Your task to perform on an android device: delete browsing data in the chrome app Image 0: 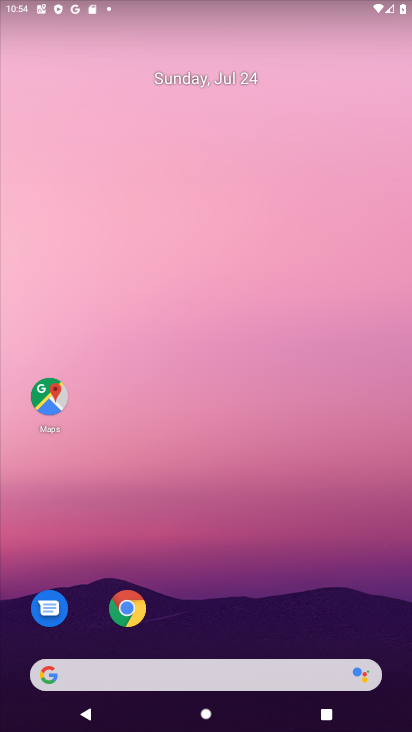
Step 0: click (128, 598)
Your task to perform on an android device: delete browsing data in the chrome app Image 1: 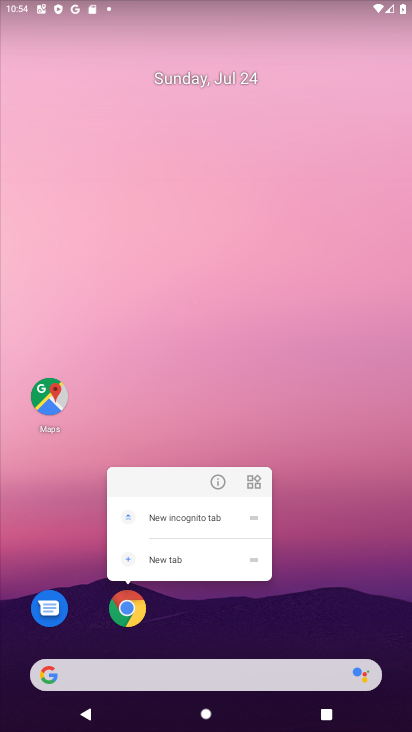
Step 1: click (130, 603)
Your task to perform on an android device: delete browsing data in the chrome app Image 2: 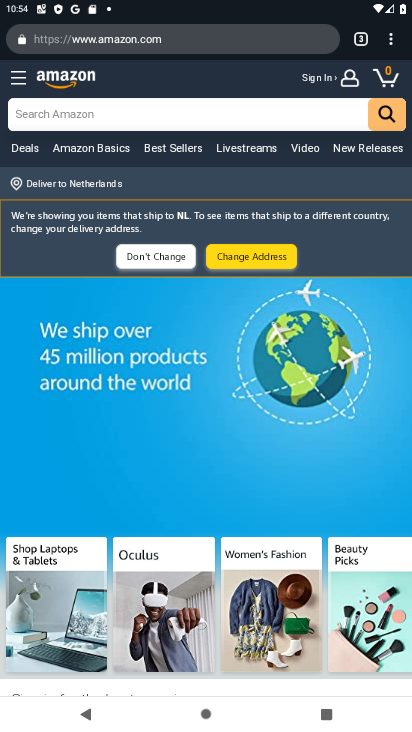
Step 2: click (393, 38)
Your task to perform on an android device: delete browsing data in the chrome app Image 3: 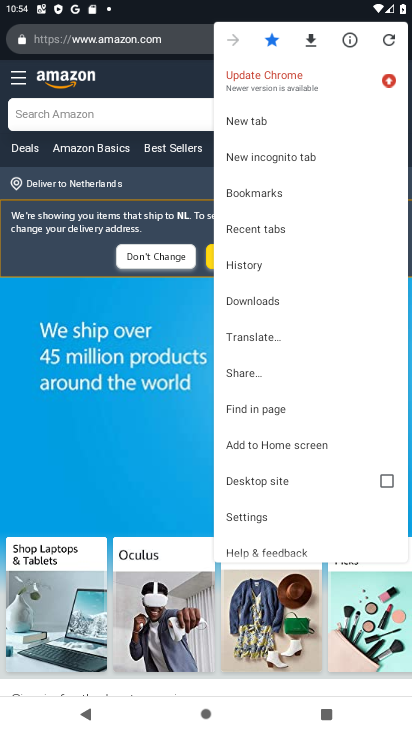
Step 3: click (264, 258)
Your task to perform on an android device: delete browsing data in the chrome app Image 4: 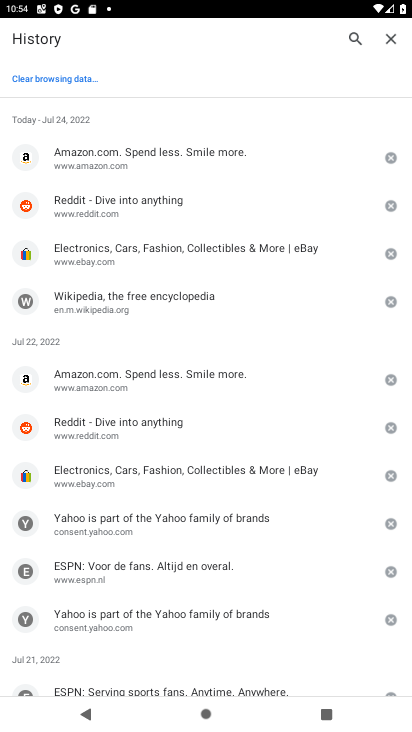
Step 4: click (66, 76)
Your task to perform on an android device: delete browsing data in the chrome app Image 5: 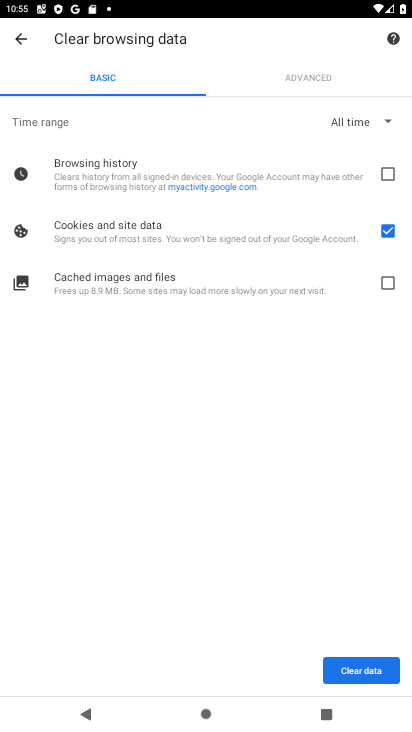
Step 5: click (387, 173)
Your task to perform on an android device: delete browsing data in the chrome app Image 6: 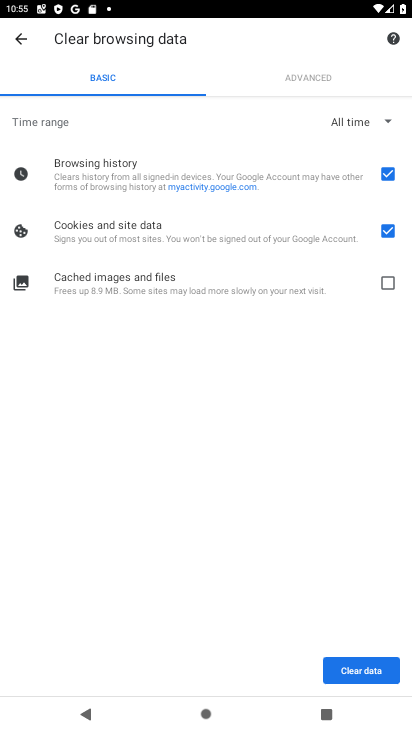
Step 6: click (384, 226)
Your task to perform on an android device: delete browsing data in the chrome app Image 7: 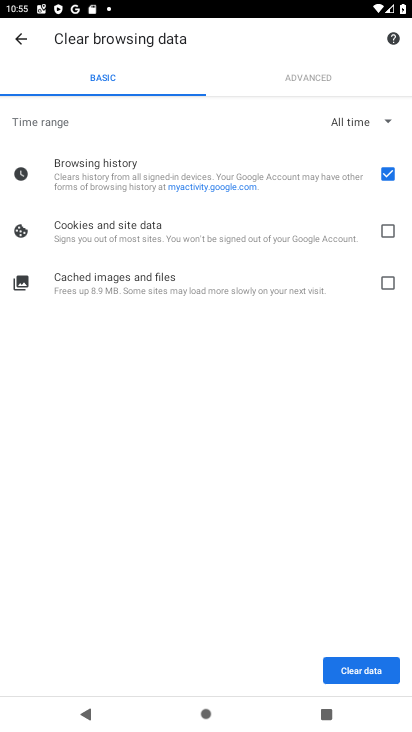
Step 7: click (364, 668)
Your task to perform on an android device: delete browsing data in the chrome app Image 8: 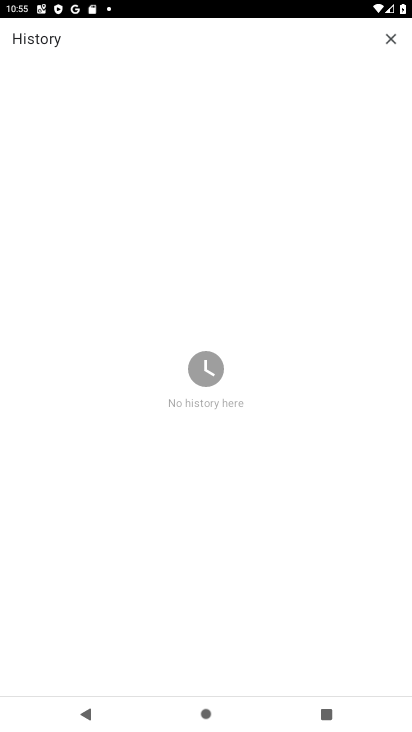
Step 8: task complete